Your task to perform on an android device: find snoozed emails in the gmail app Image 0: 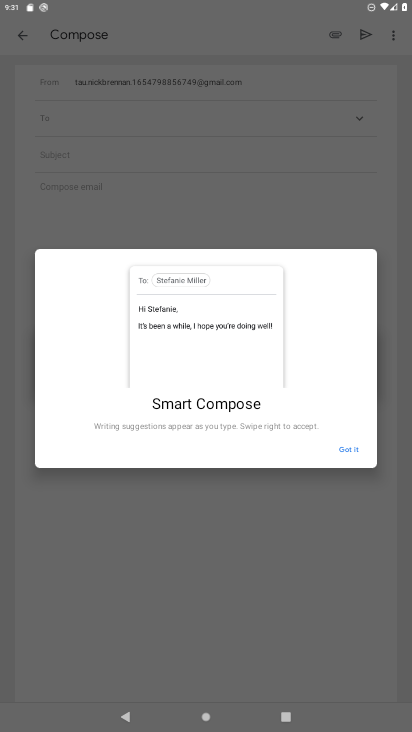
Step 0: press home button
Your task to perform on an android device: find snoozed emails in the gmail app Image 1: 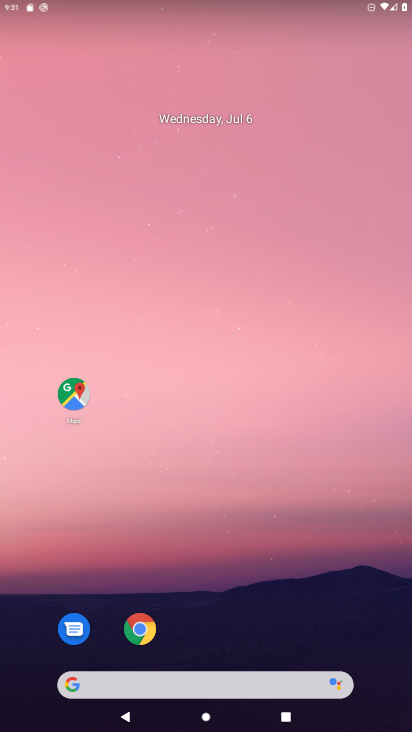
Step 1: drag from (206, 649) to (283, 92)
Your task to perform on an android device: find snoozed emails in the gmail app Image 2: 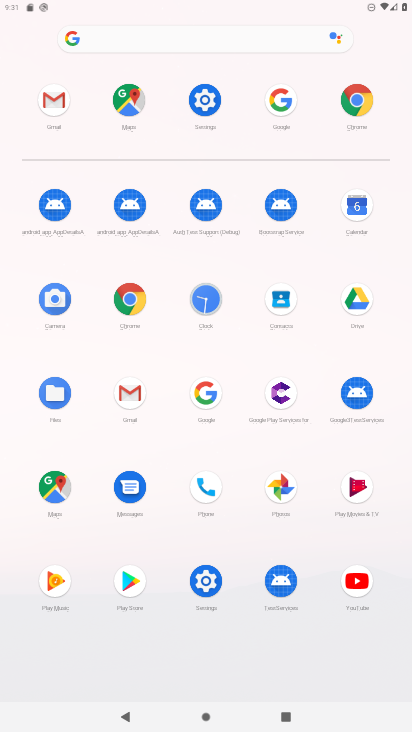
Step 2: click (130, 398)
Your task to perform on an android device: find snoozed emails in the gmail app Image 3: 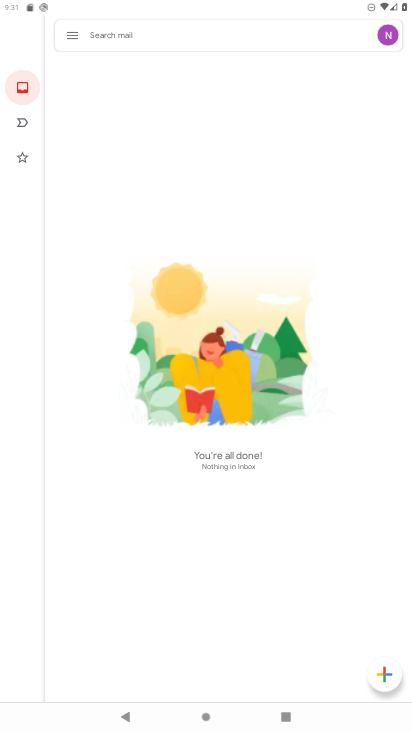
Step 3: task complete